Your task to perform on an android device: toggle pop-ups in chrome Image 0: 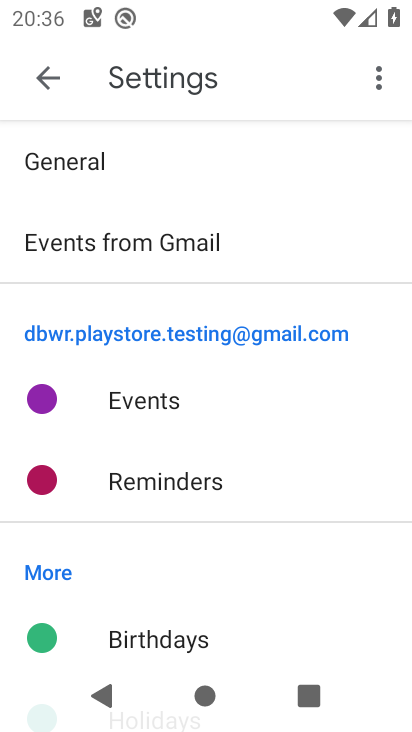
Step 0: press home button
Your task to perform on an android device: toggle pop-ups in chrome Image 1: 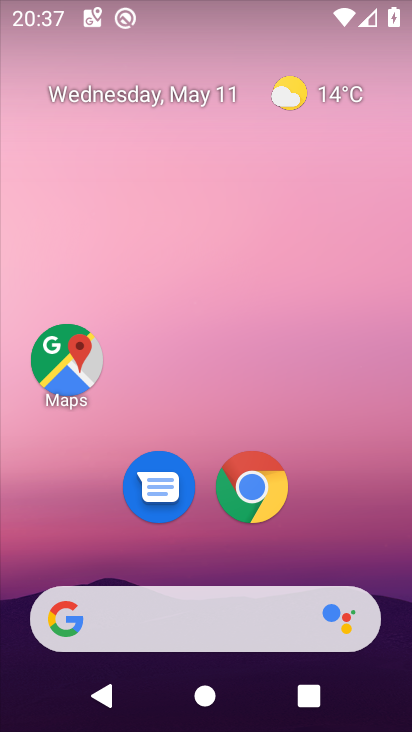
Step 1: click (242, 485)
Your task to perform on an android device: toggle pop-ups in chrome Image 2: 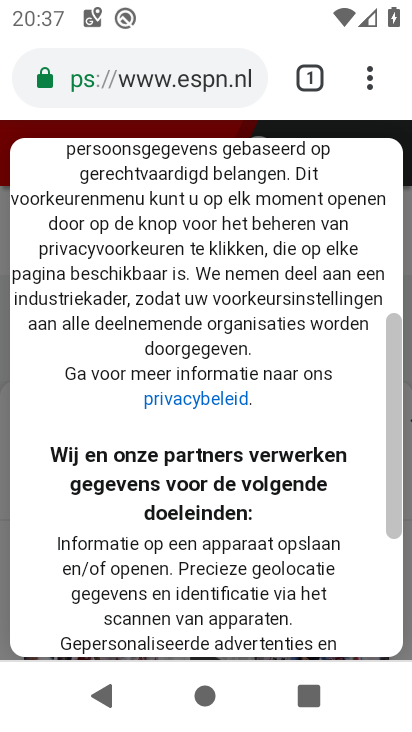
Step 2: click (368, 72)
Your task to perform on an android device: toggle pop-ups in chrome Image 3: 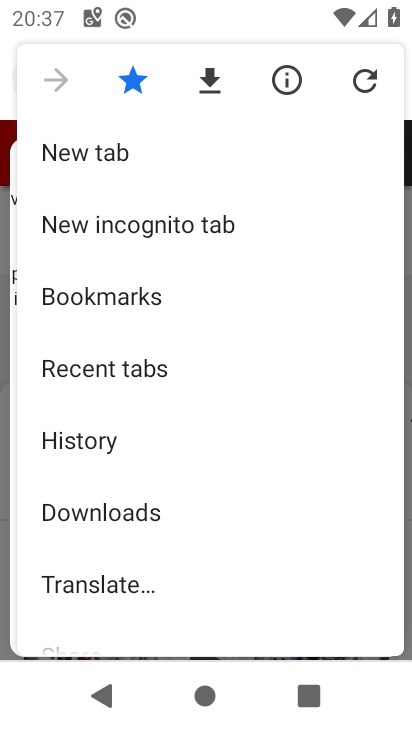
Step 3: drag from (156, 610) to (188, 168)
Your task to perform on an android device: toggle pop-ups in chrome Image 4: 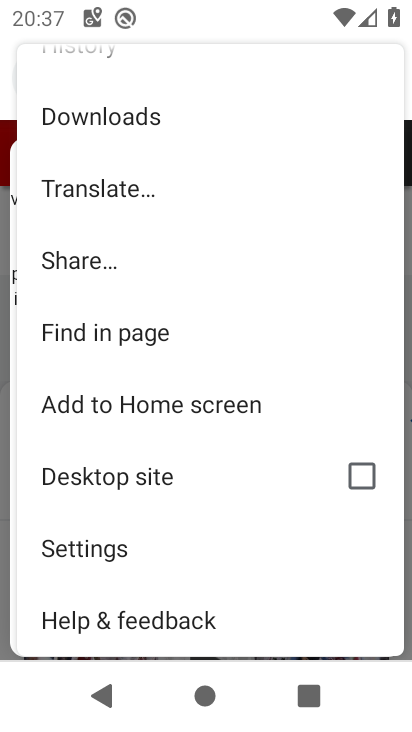
Step 4: click (100, 549)
Your task to perform on an android device: toggle pop-ups in chrome Image 5: 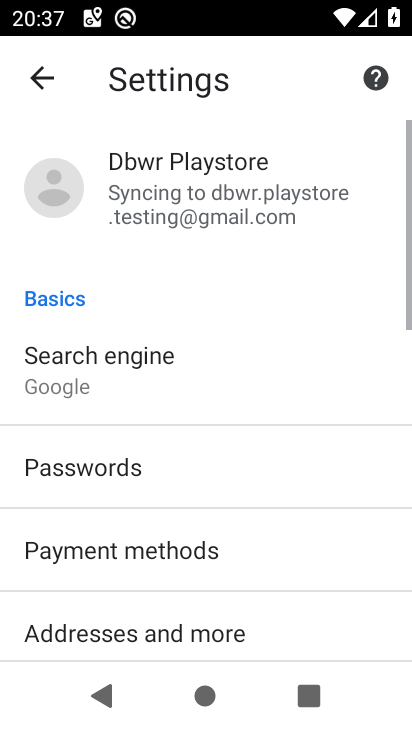
Step 5: drag from (268, 582) to (318, 225)
Your task to perform on an android device: toggle pop-ups in chrome Image 6: 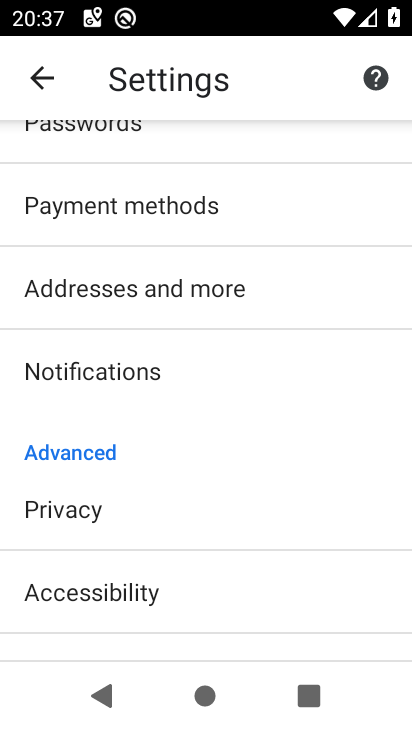
Step 6: drag from (199, 613) to (199, 275)
Your task to perform on an android device: toggle pop-ups in chrome Image 7: 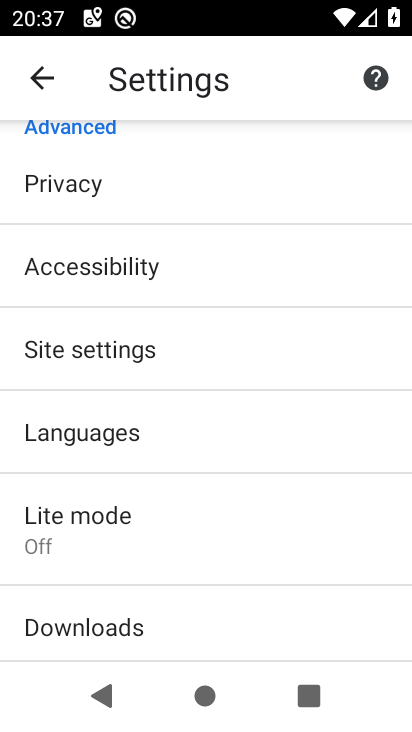
Step 7: click (97, 331)
Your task to perform on an android device: toggle pop-ups in chrome Image 8: 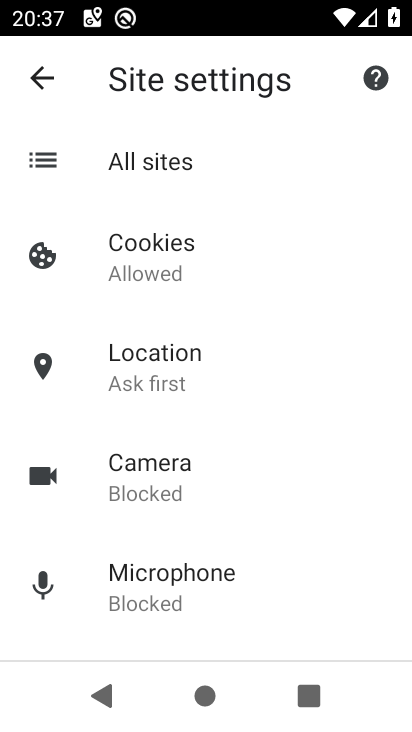
Step 8: drag from (209, 627) to (290, 218)
Your task to perform on an android device: toggle pop-ups in chrome Image 9: 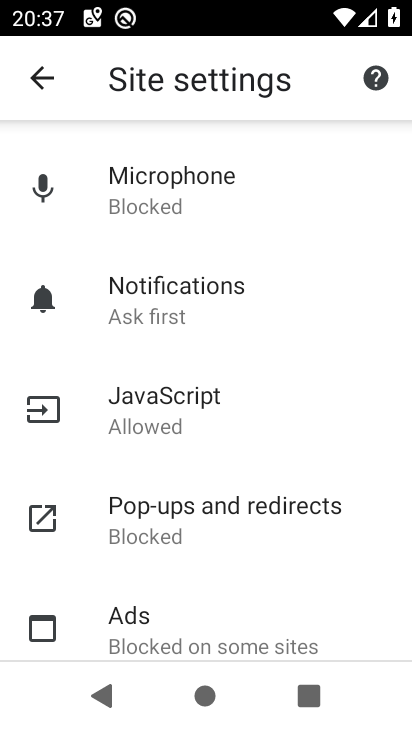
Step 9: click (228, 516)
Your task to perform on an android device: toggle pop-ups in chrome Image 10: 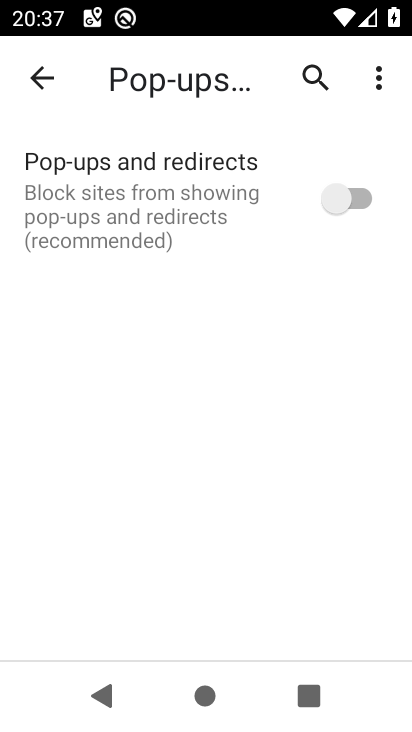
Step 10: click (365, 198)
Your task to perform on an android device: toggle pop-ups in chrome Image 11: 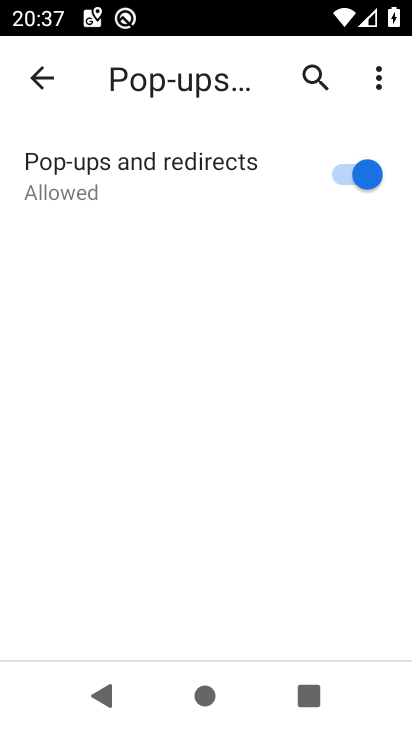
Step 11: task complete